Your task to perform on an android device: Is it going to rain this weekend? Image 0: 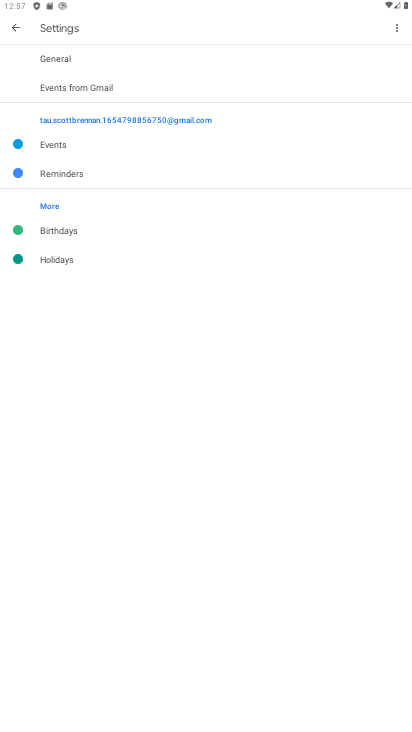
Step 0: press home button
Your task to perform on an android device: Is it going to rain this weekend? Image 1: 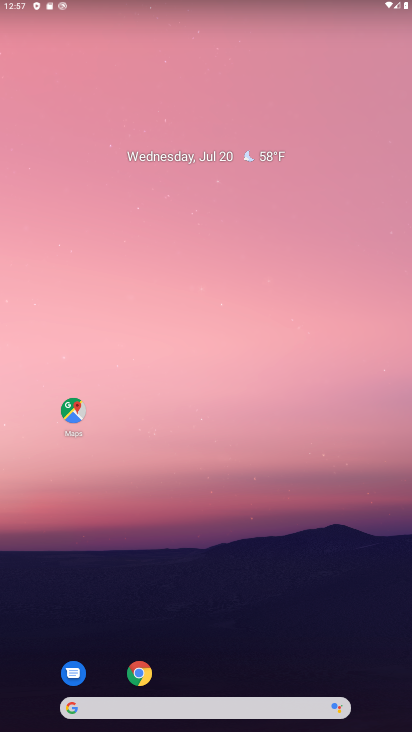
Step 1: click (279, 163)
Your task to perform on an android device: Is it going to rain this weekend? Image 2: 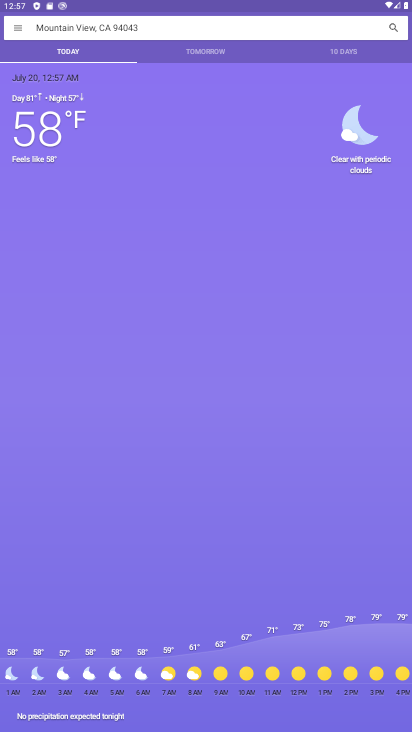
Step 2: click (332, 54)
Your task to perform on an android device: Is it going to rain this weekend? Image 3: 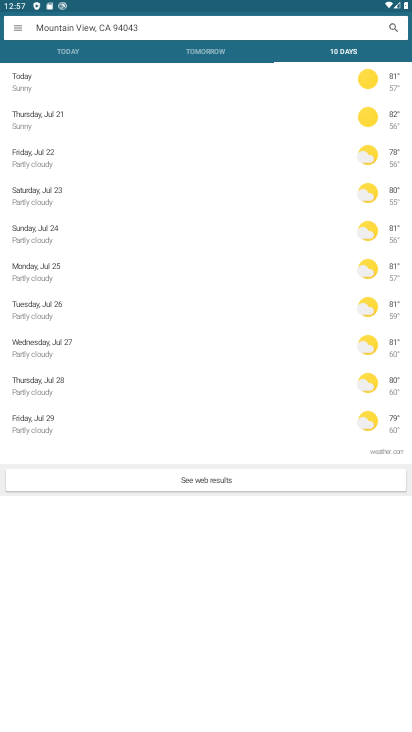
Step 3: click (57, 191)
Your task to perform on an android device: Is it going to rain this weekend? Image 4: 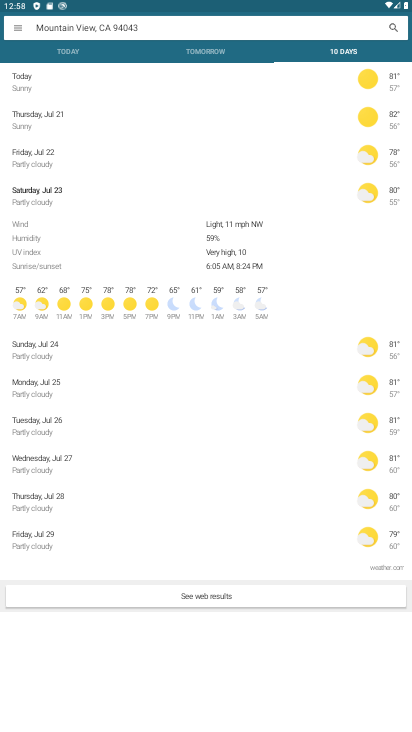
Step 4: task complete